Your task to perform on an android device: open app "Walmart Shopping & Grocery" (install if not already installed) Image 0: 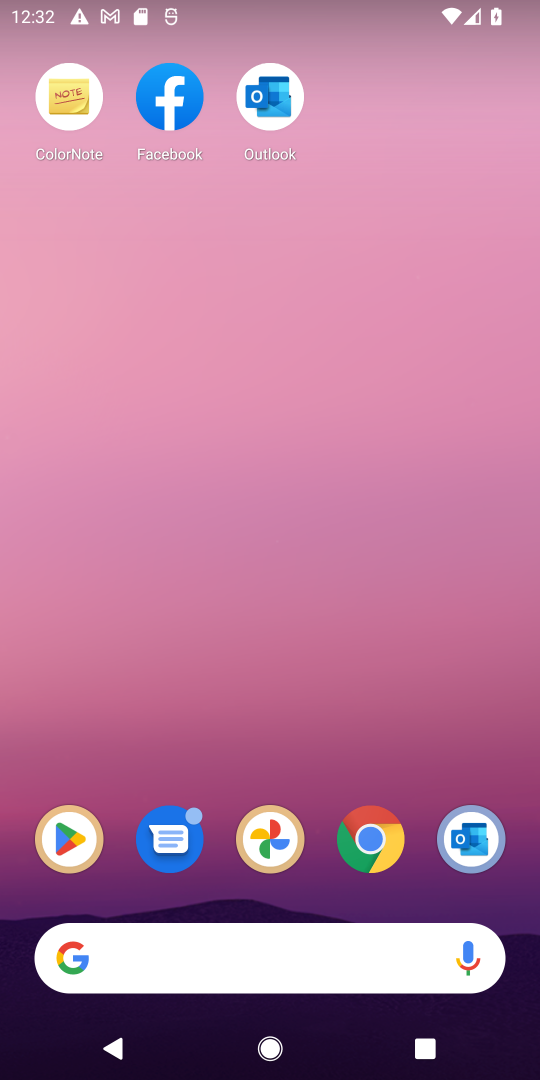
Step 0: drag from (382, 774) to (227, 351)
Your task to perform on an android device: open app "Walmart Shopping & Grocery" (install if not already installed) Image 1: 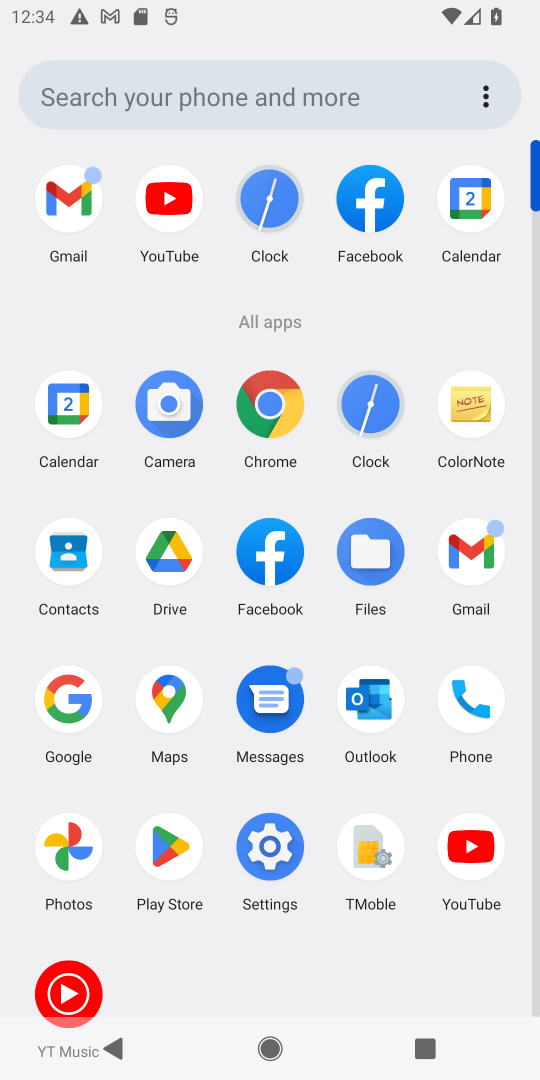
Step 1: click (175, 837)
Your task to perform on an android device: open app "Walmart Shopping & Grocery" (install if not already installed) Image 2: 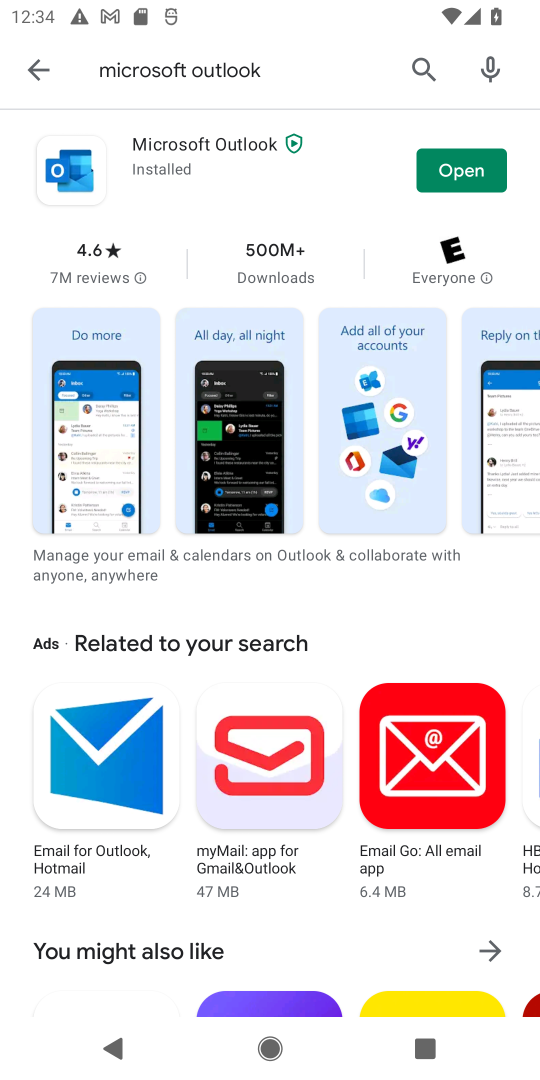
Step 2: click (409, 59)
Your task to perform on an android device: open app "Walmart Shopping & Grocery" (install if not already installed) Image 3: 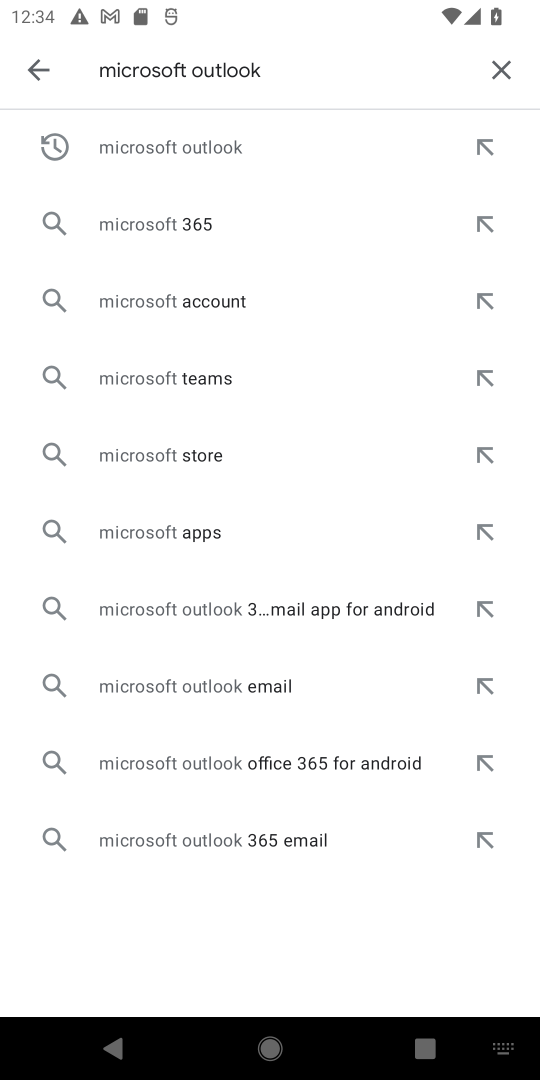
Step 3: click (500, 68)
Your task to perform on an android device: open app "Walmart Shopping & Grocery" (install if not already installed) Image 4: 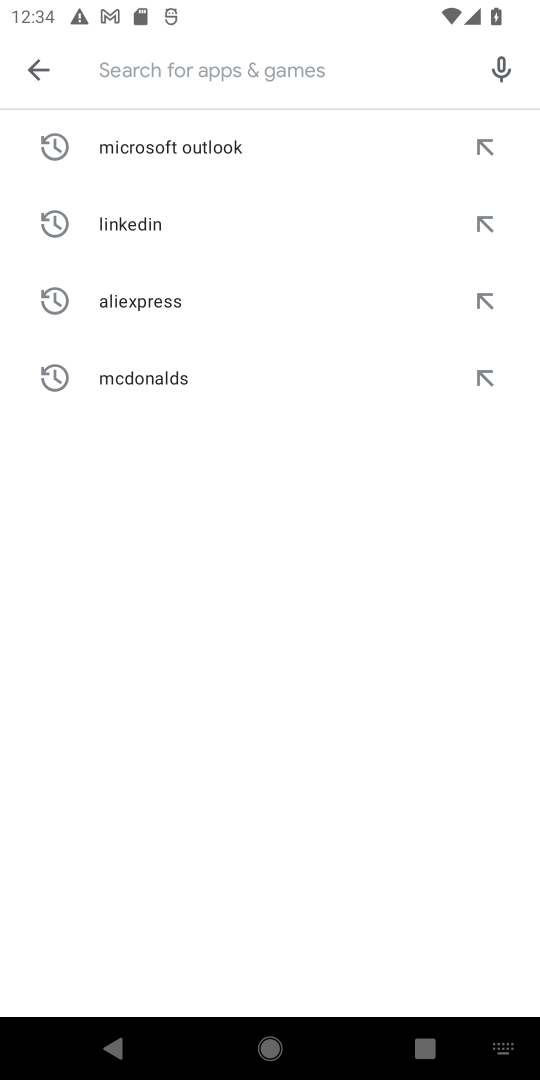
Step 4: type "walmart shopping & grocery"
Your task to perform on an android device: open app "Walmart Shopping & Grocery" (install if not already installed) Image 5: 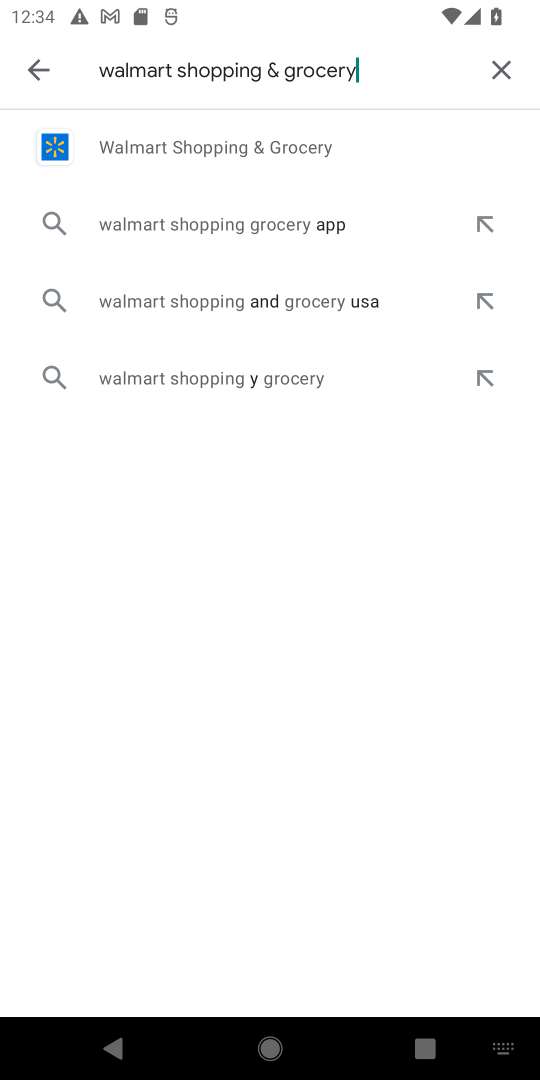
Step 5: click (291, 141)
Your task to perform on an android device: open app "Walmart Shopping & Grocery" (install if not already installed) Image 6: 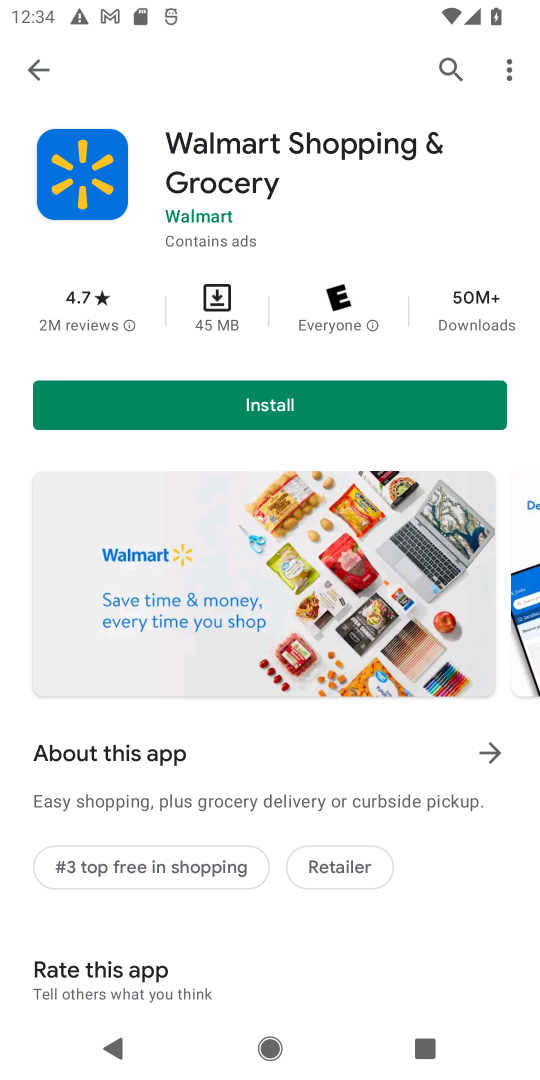
Step 6: click (392, 402)
Your task to perform on an android device: open app "Walmart Shopping & Grocery" (install if not already installed) Image 7: 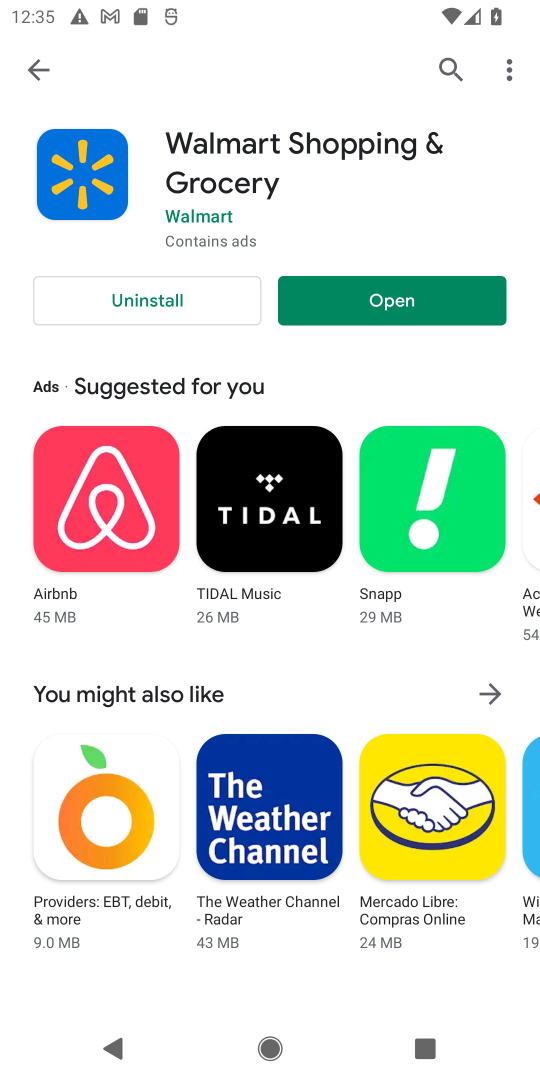
Step 7: click (375, 287)
Your task to perform on an android device: open app "Walmart Shopping & Grocery" (install if not already installed) Image 8: 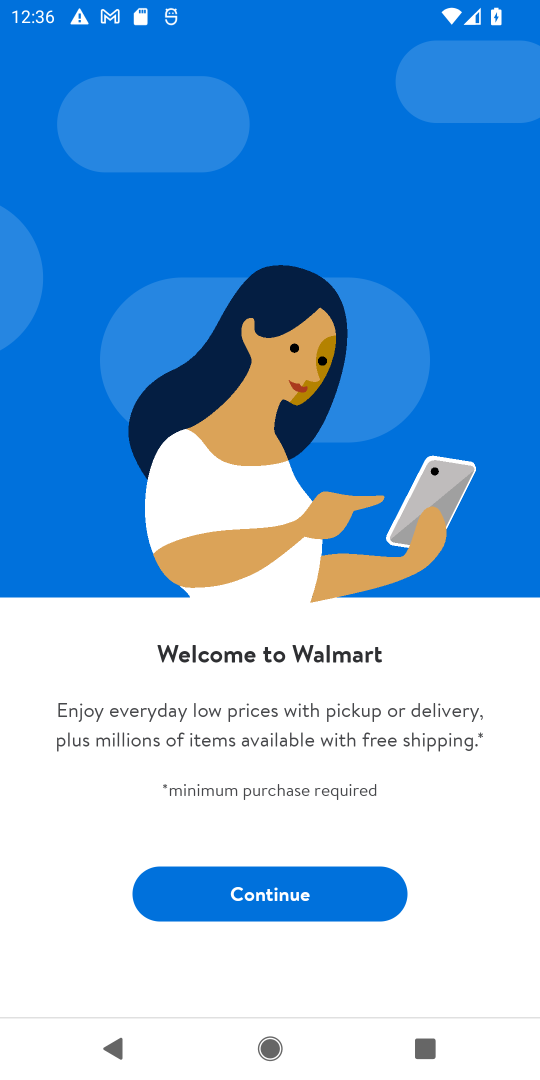
Step 8: task complete